Your task to perform on an android device: Open Maps and search for coffee Image 0: 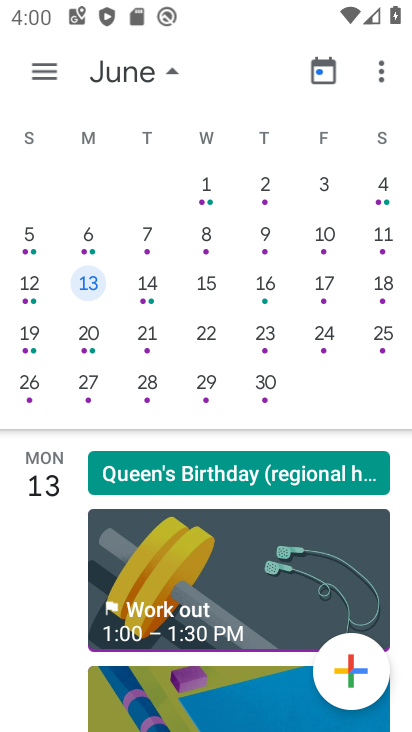
Step 0: press home button
Your task to perform on an android device: Open Maps and search for coffee Image 1: 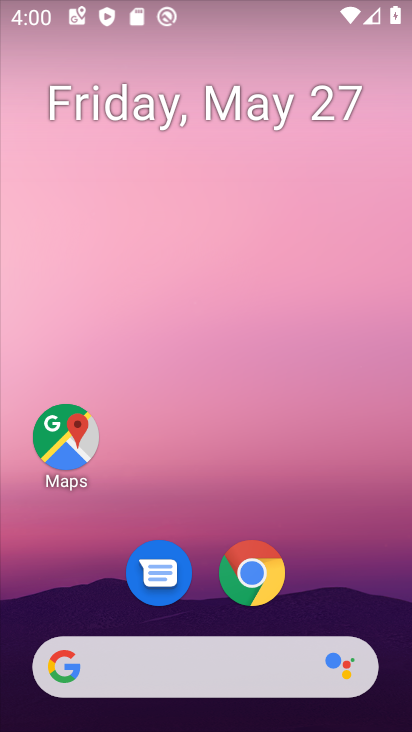
Step 1: drag from (352, 598) to (356, 210)
Your task to perform on an android device: Open Maps and search for coffee Image 2: 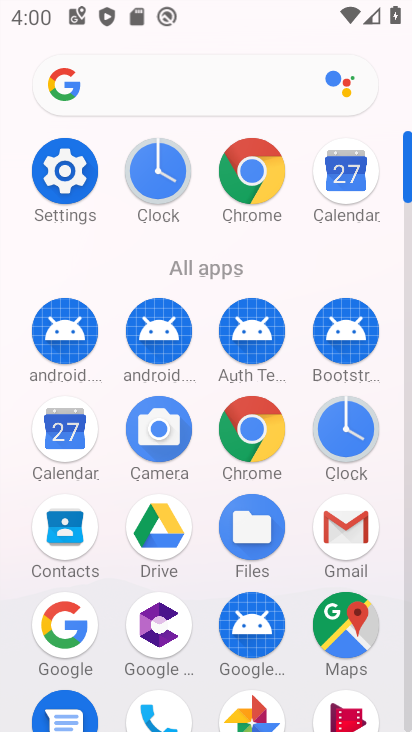
Step 2: click (362, 627)
Your task to perform on an android device: Open Maps and search for coffee Image 3: 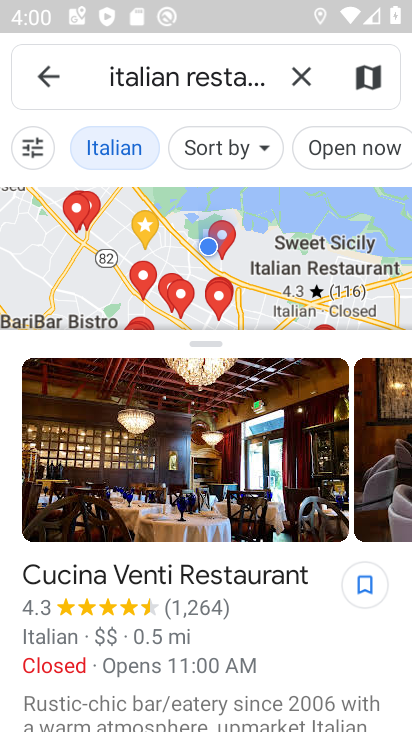
Step 3: click (307, 77)
Your task to perform on an android device: Open Maps and search for coffee Image 4: 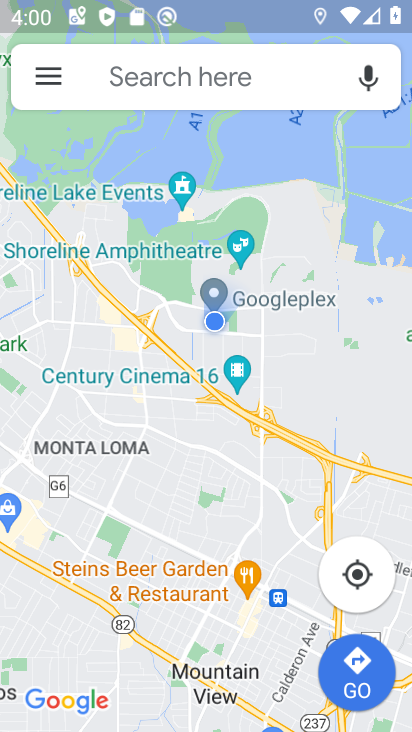
Step 4: click (224, 87)
Your task to perform on an android device: Open Maps and search for coffee Image 5: 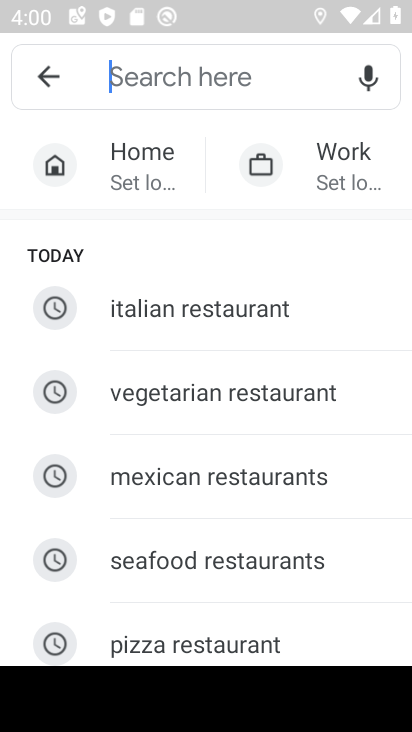
Step 5: type "coffee"
Your task to perform on an android device: Open Maps and search for coffee Image 6: 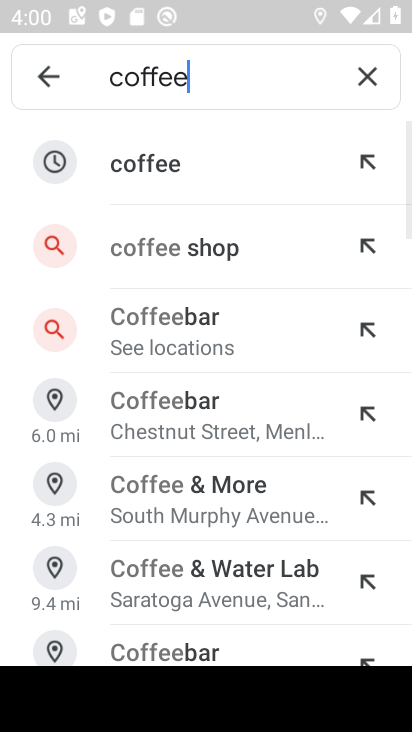
Step 6: click (164, 172)
Your task to perform on an android device: Open Maps and search for coffee Image 7: 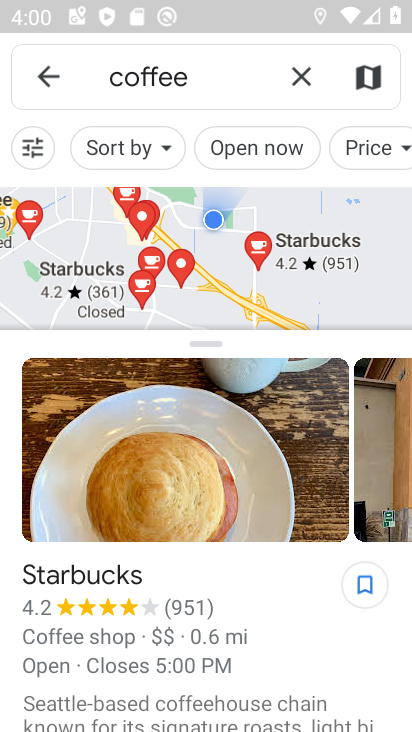
Step 7: task complete